Your task to perform on an android device: Open the calendar and show me this week's events Image 0: 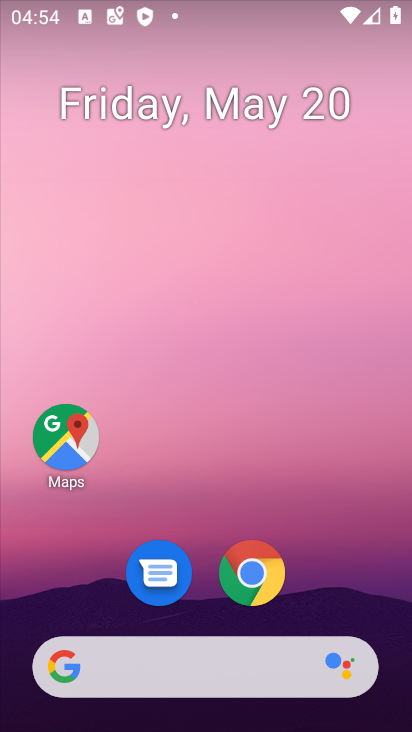
Step 0: drag from (392, 647) to (341, 82)
Your task to perform on an android device: Open the calendar and show me this week's events Image 1: 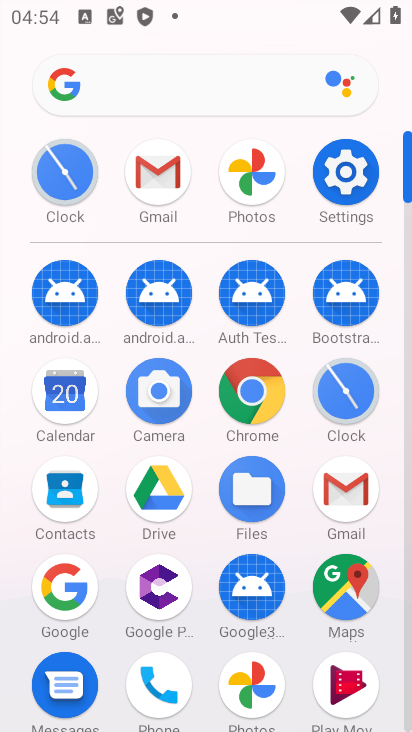
Step 1: click (408, 714)
Your task to perform on an android device: Open the calendar and show me this week's events Image 2: 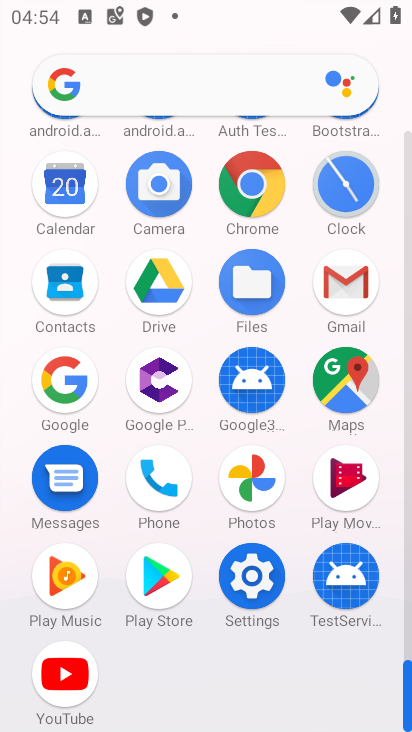
Step 2: click (64, 184)
Your task to perform on an android device: Open the calendar and show me this week's events Image 3: 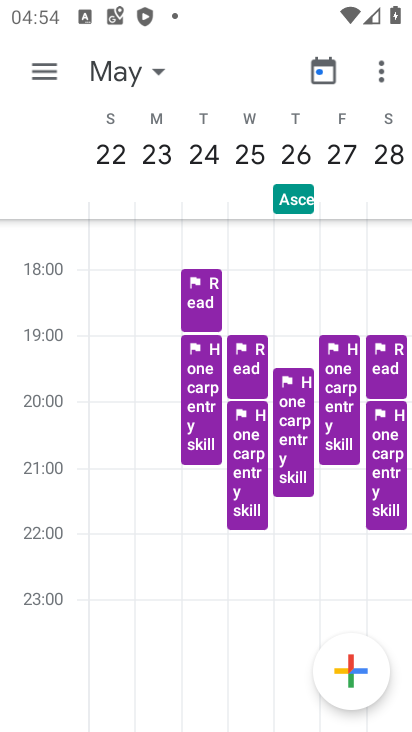
Step 3: click (148, 68)
Your task to perform on an android device: Open the calendar and show me this week's events Image 4: 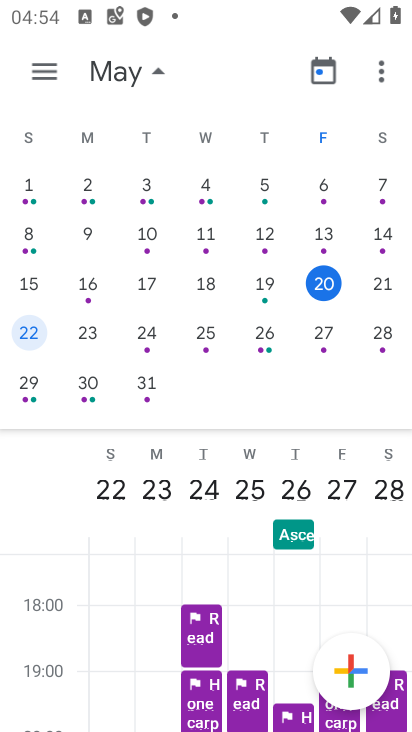
Step 4: click (321, 278)
Your task to perform on an android device: Open the calendar and show me this week's events Image 5: 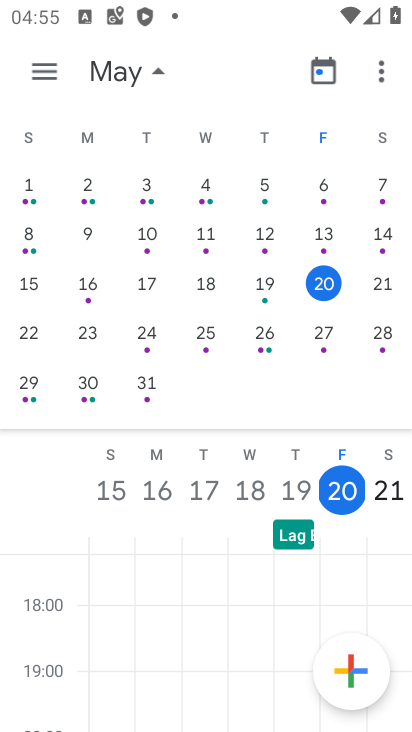
Step 5: drag from (220, 667) to (196, 282)
Your task to perform on an android device: Open the calendar and show me this week's events Image 6: 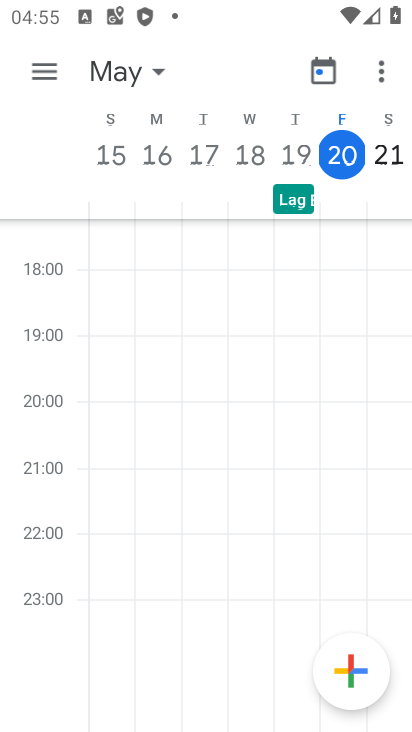
Step 6: drag from (194, 356) to (203, 609)
Your task to perform on an android device: Open the calendar and show me this week's events Image 7: 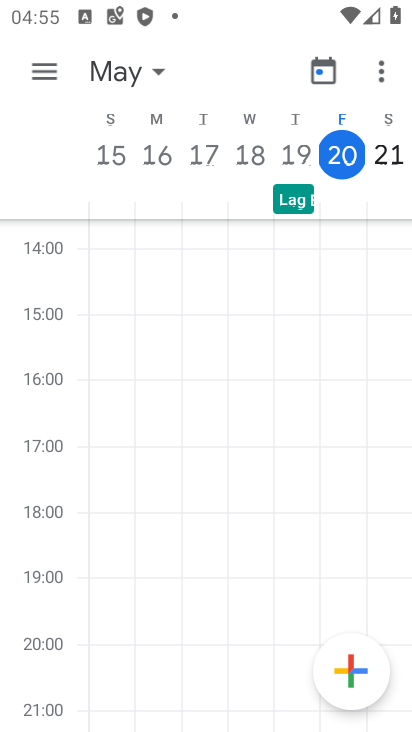
Step 7: click (220, 687)
Your task to perform on an android device: Open the calendar and show me this week's events Image 8: 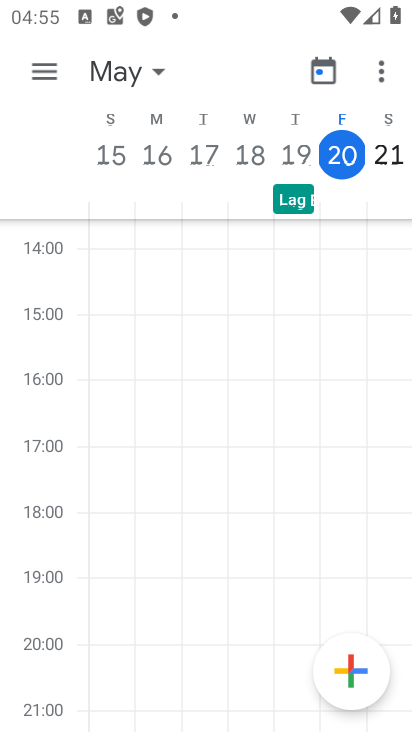
Step 8: task complete